Your task to perform on an android device: turn on javascript in the chrome app Image 0: 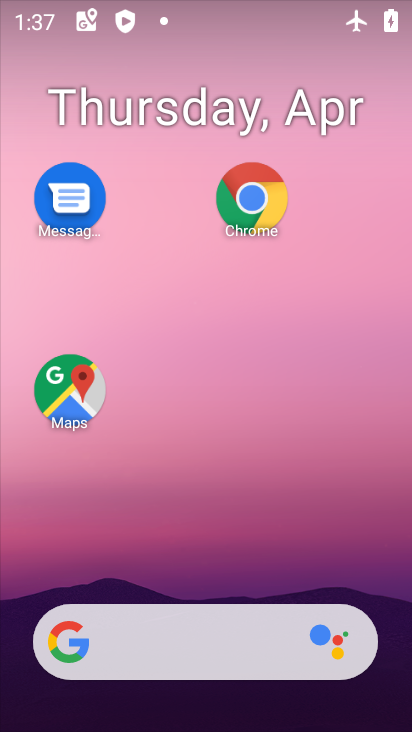
Step 0: drag from (190, 611) to (211, 42)
Your task to perform on an android device: turn on javascript in the chrome app Image 1: 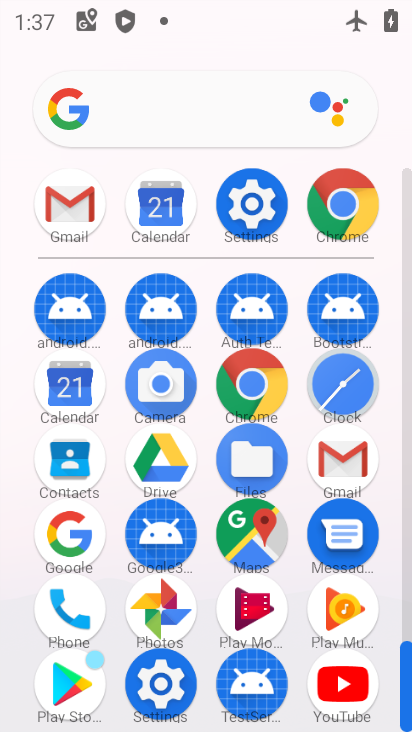
Step 1: click (349, 205)
Your task to perform on an android device: turn on javascript in the chrome app Image 2: 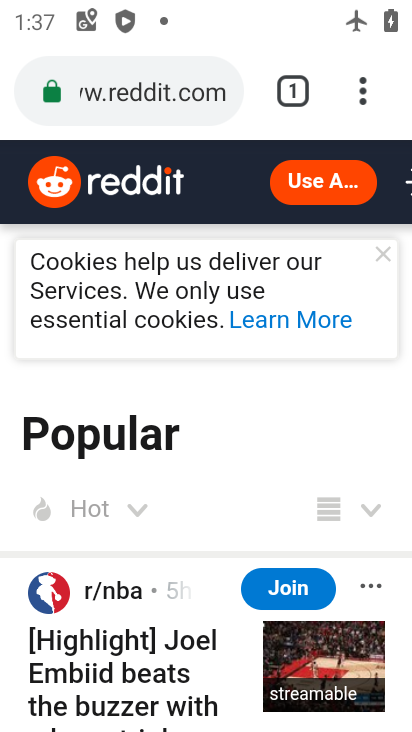
Step 2: click (362, 93)
Your task to perform on an android device: turn on javascript in the chrome app Image 3: 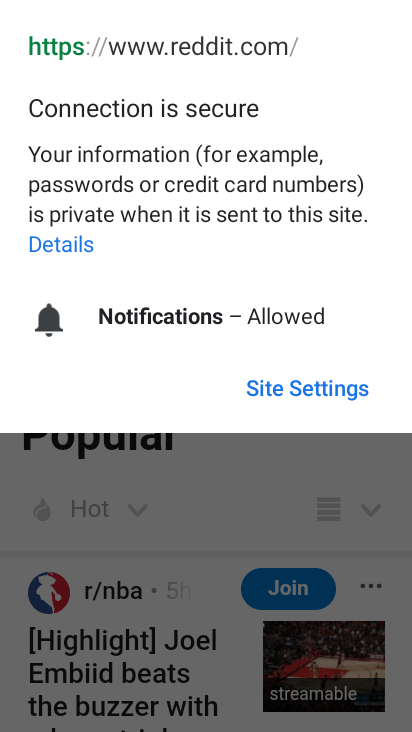
Step 3: click (272, 482)
Your task to perform on an android device: turn on javascript in the chrome app Image 4: 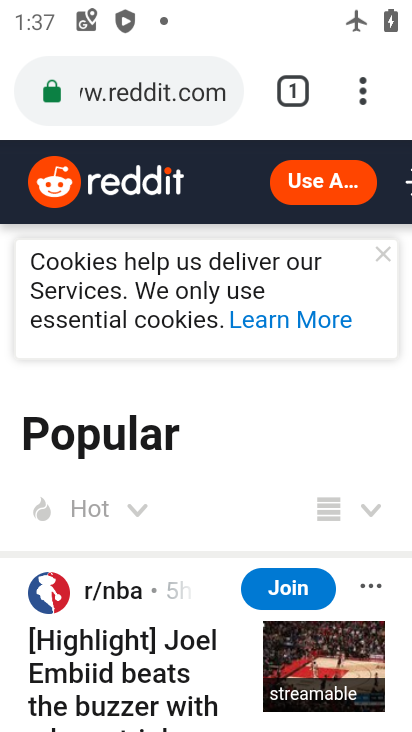
Step 4: click (360, 109)
Your task to perform on an android device: turn on javascript in the chrome app Image 5: 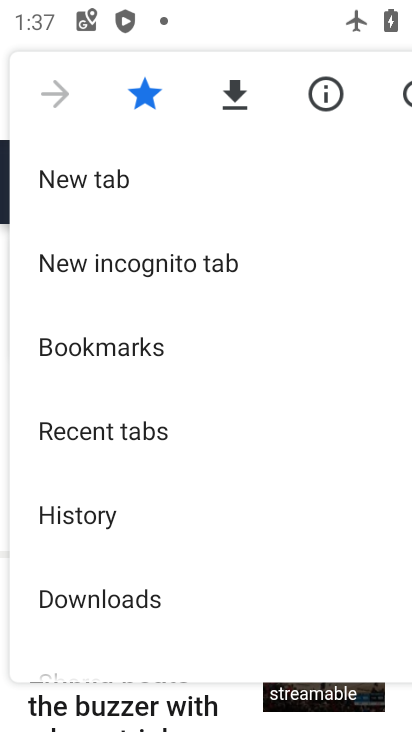
Step 5: drag from (202, 536) to (130, 37)
Your task to perform on an android device: turn on javascript in the chrome app Image 6: 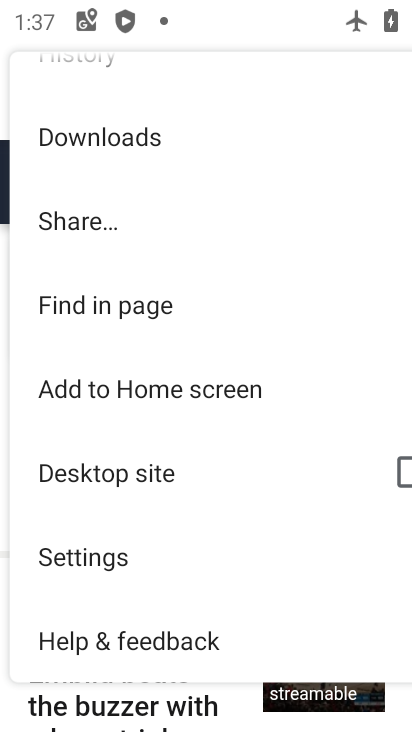
Step 6: click (117, 571)
Your task to perform on an android device: turn on javascript in the chrome app Image 7: 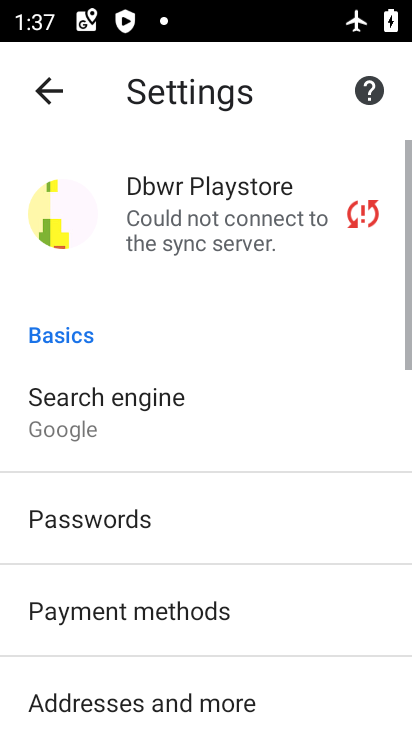
Step 7: drag from (135, 604) to (112, 137)
Your task to perform on an android device: turn on javascript in the chrome app Image 8: 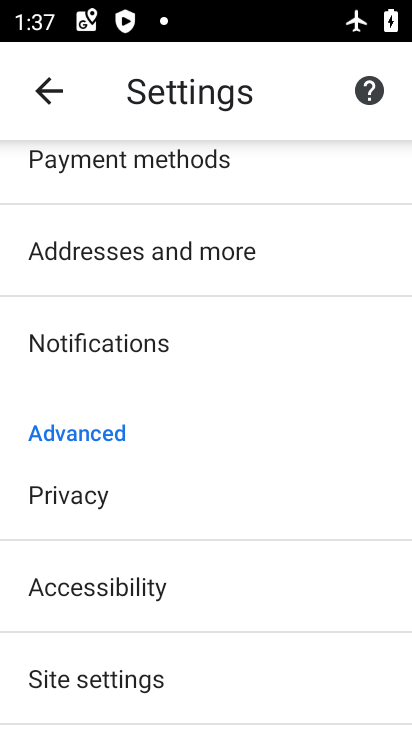
Step 8: drag from (98, 622) to (64, 197)
Your task to perform on an android device: turn on javascript in the chrome app Image 9: 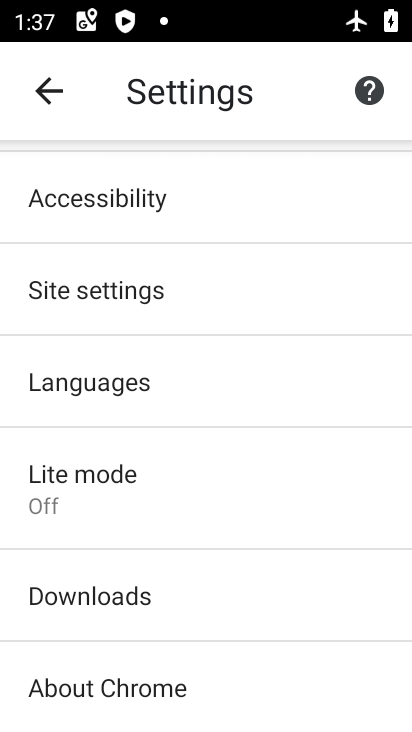
Step 9: click (94, 290)
Your task to perform on an android device: turn on javascript in the chrome app Image 10: 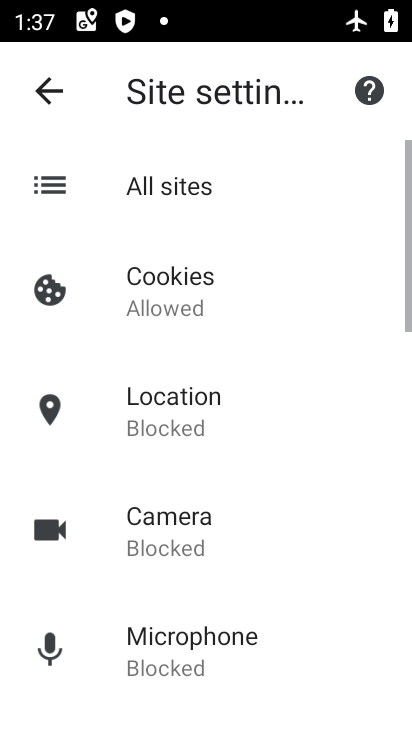
Step 10: drag from (158, 620) to (115, 141)
Your task to perform on an android device: turn on javascript in the chrome app Image 11: 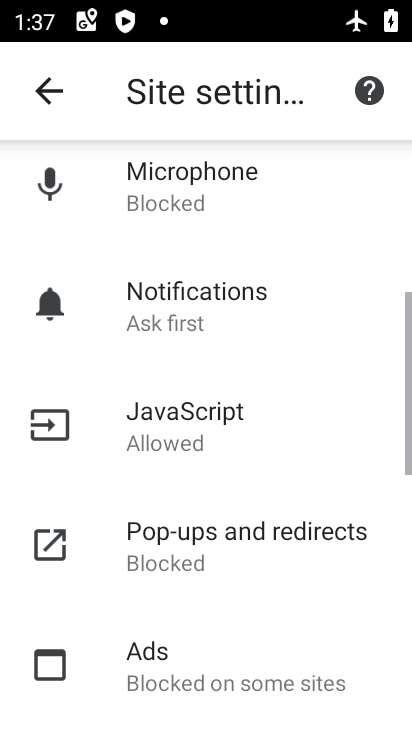
Step 11: click (171, 422)
Your task to perform on an android device: turn on javascript in the chrome app Image 12: 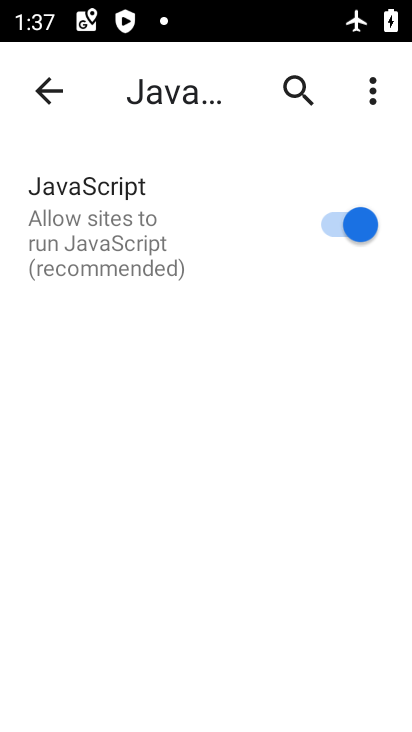
Step 12: task complete